Your task to perform on an android device: check data usage Image 0: 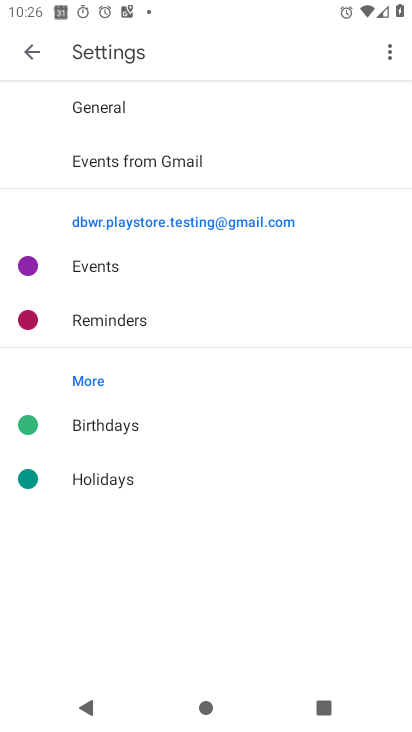
Step 0: press home button
Your task to perform on an android device: check data usage Image 1: 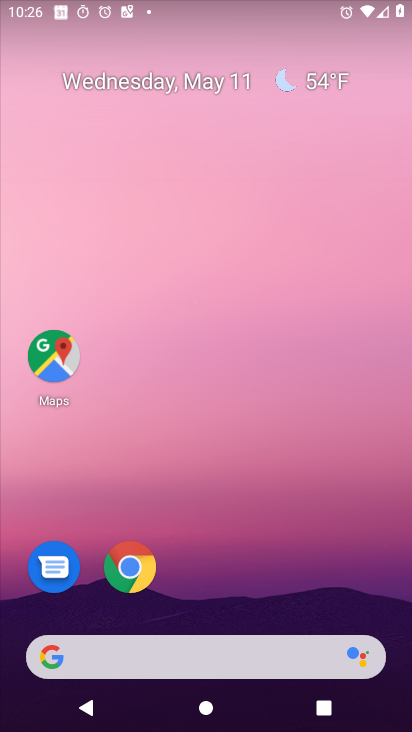
Step 1: drag from (195, 590) to (264, 10)
Your task to perform on an android device: check data usage Image 2: 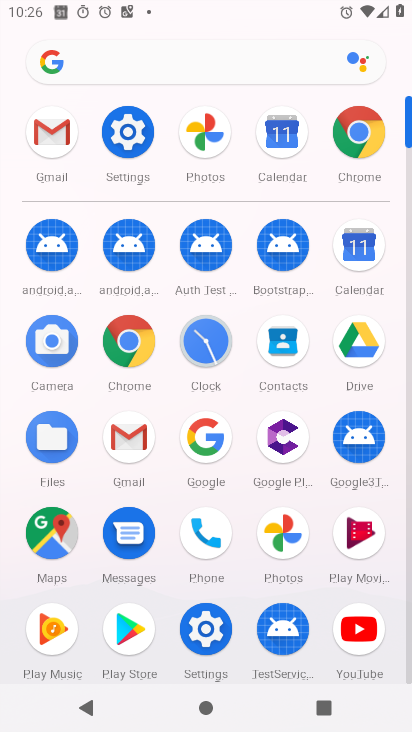
Step 2: click (200, 635)
Your task to perform on an android device: check data usage Image 3: 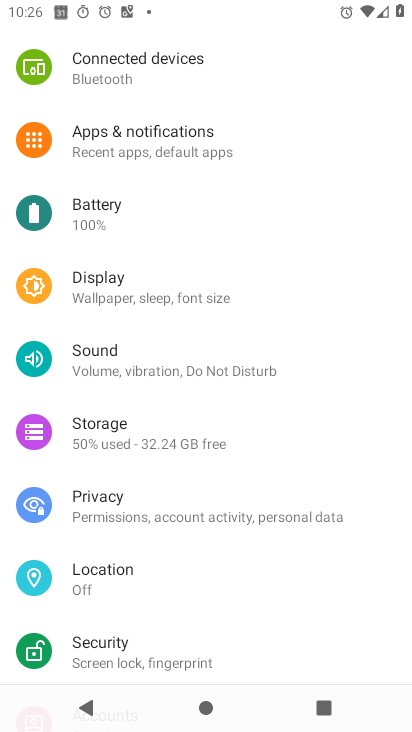
Step 3: drag from (163, 145) to (141, 520)
Your task to perform on an android device: check data usage Image 4: 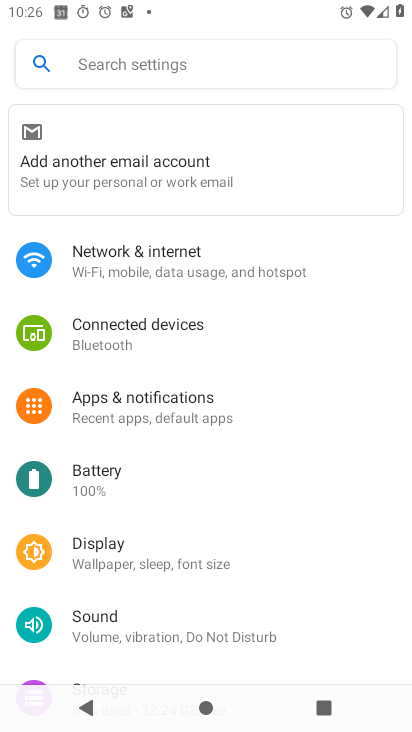
Step 4: click (158, 267)
Your task to perform on an android device: check data usage Image 5: 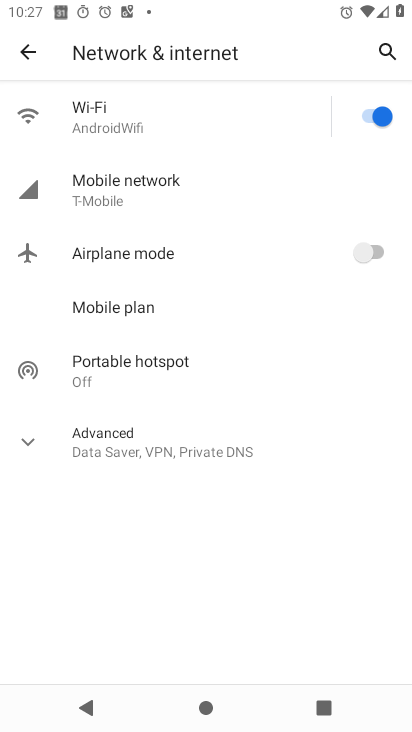
Step 5: click (147, 182)
Your task to perform on an android device: check data usage Image 6: 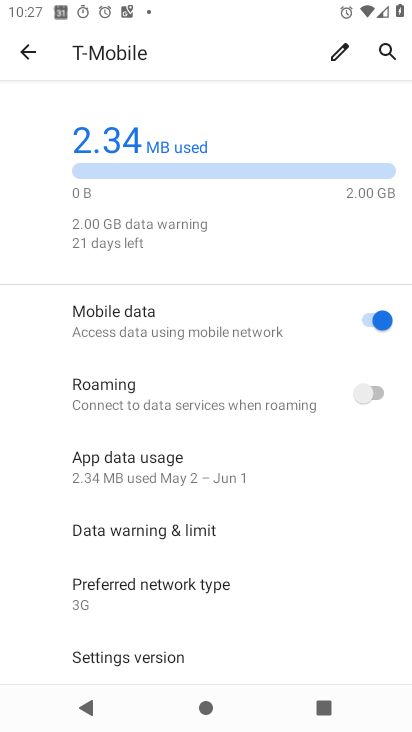
Step 6: task complete